Your task to perform on an android device: Open Maps and search for coffee Image 0: 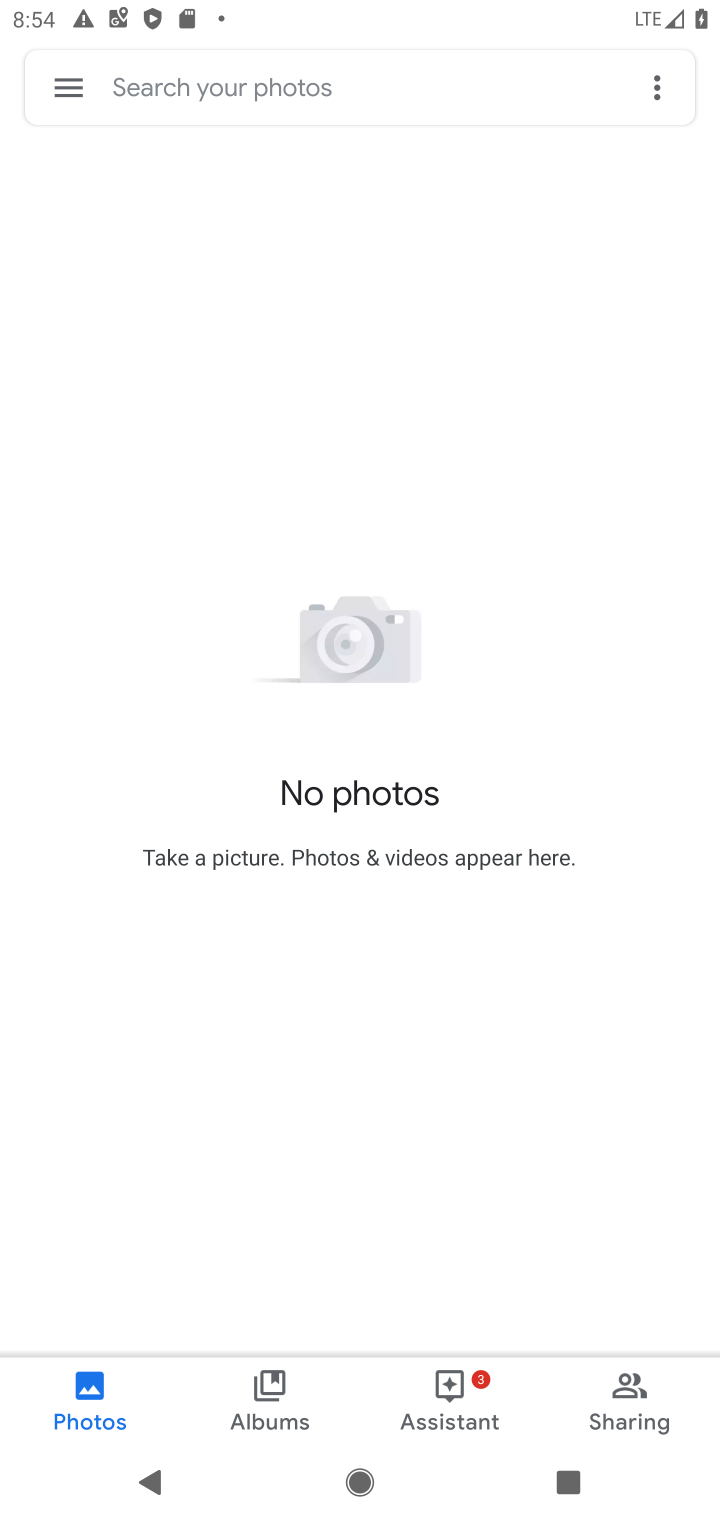
Step 0: press home button
Your task to perform on an android device: Open Maps and search for coffee Image 1: 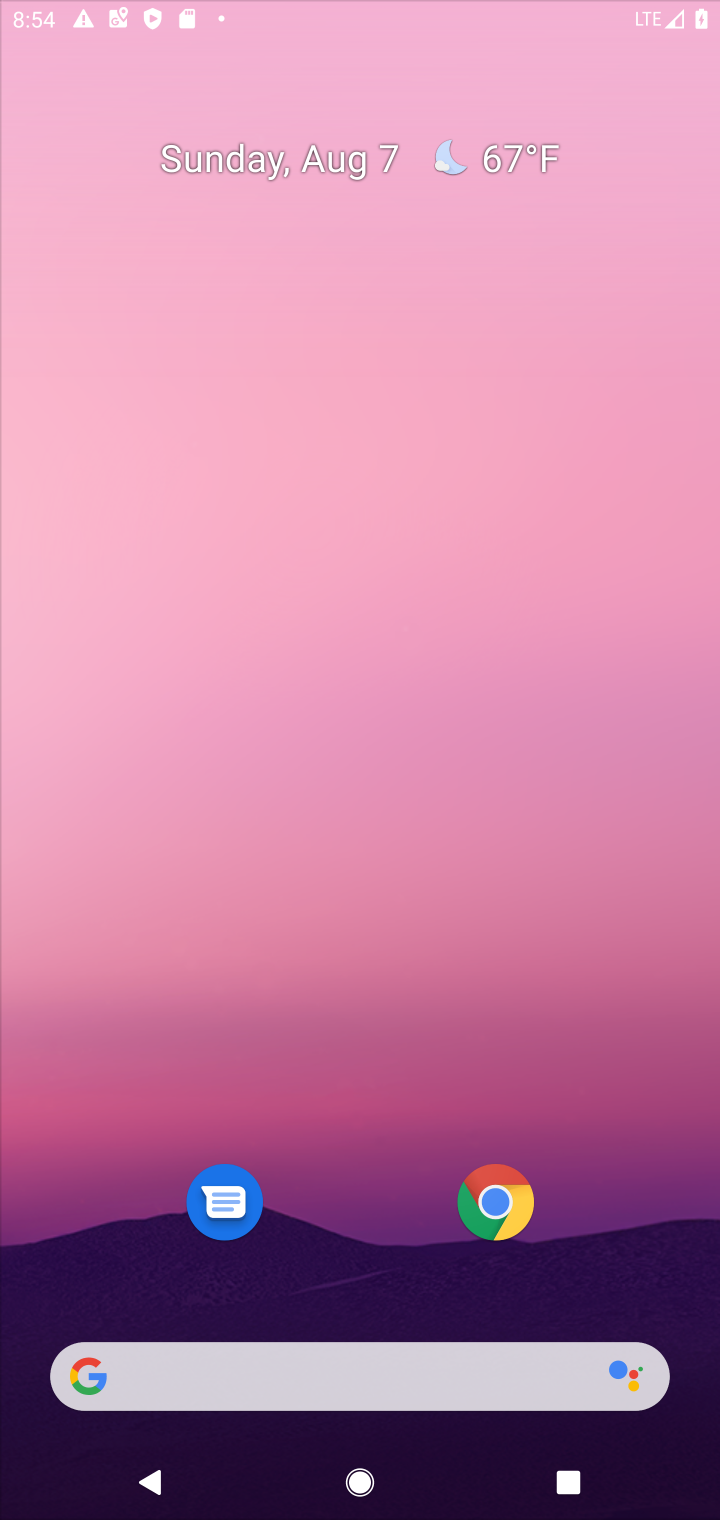
Step 1: press home button
Your task to perform on an android device: Open Maps and search for coffee Image 2: 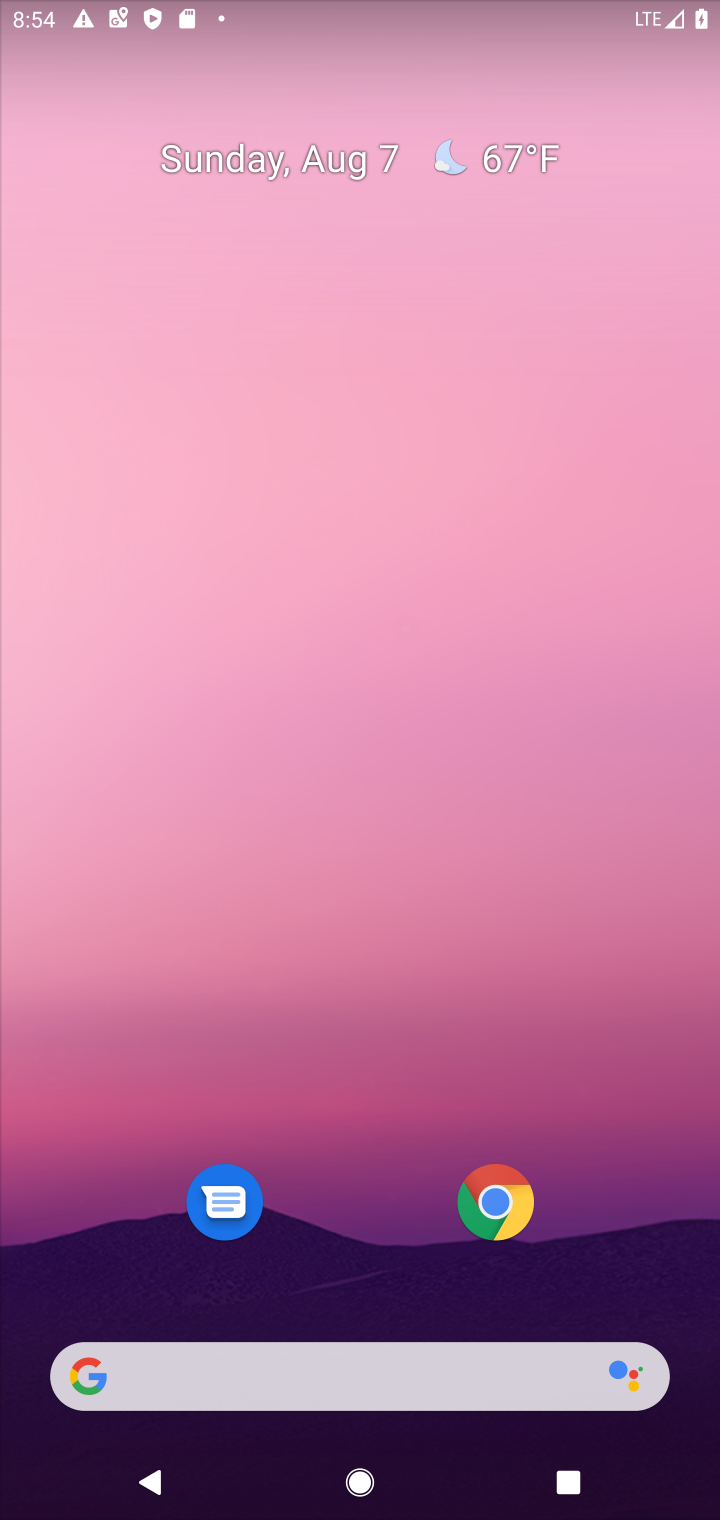
Step 2: drag from (333, 1293) to (324, 458)
Your task to perform on an android device: Open Maps and search for coffee Image 3: 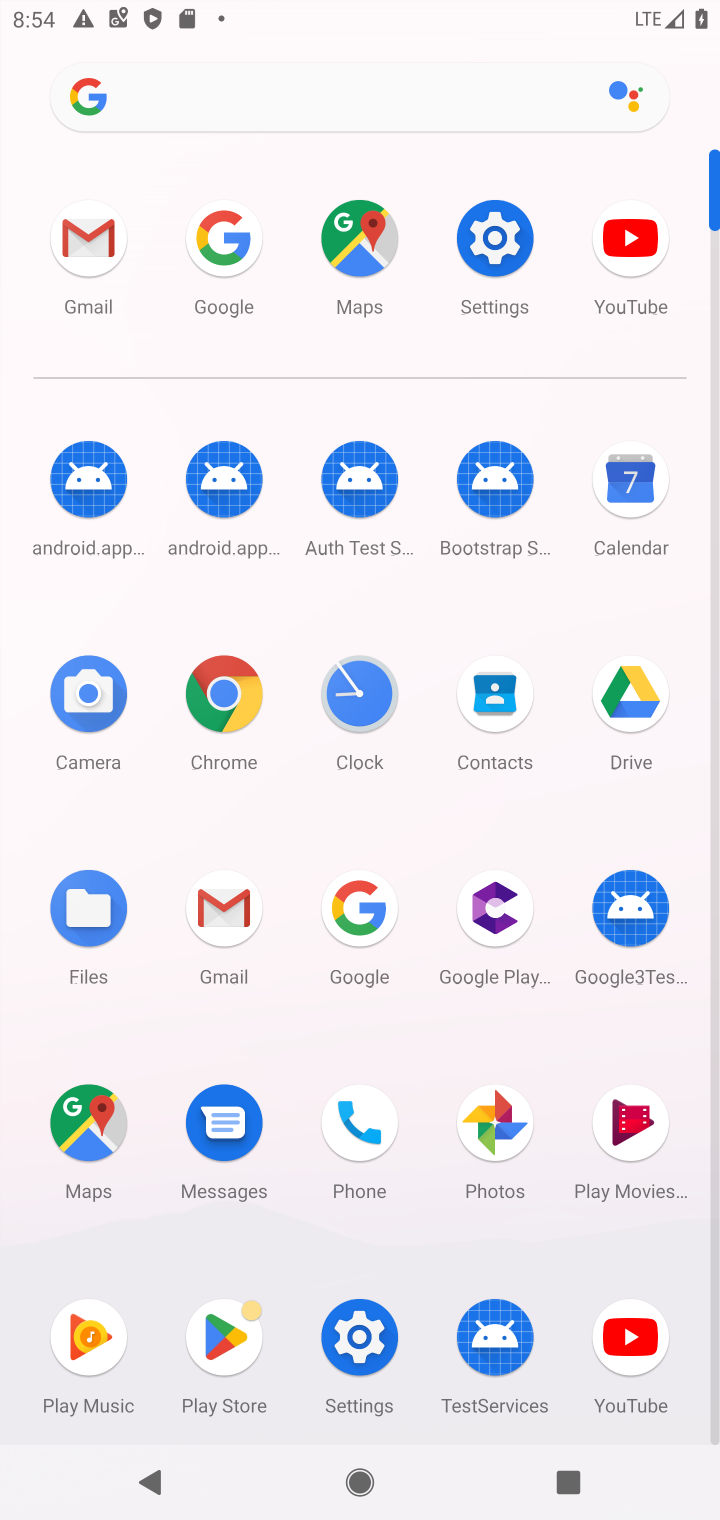
Step 3: click (348, 242)
Your task to perform on an android device: Open Maps and search for coffee Image 4: 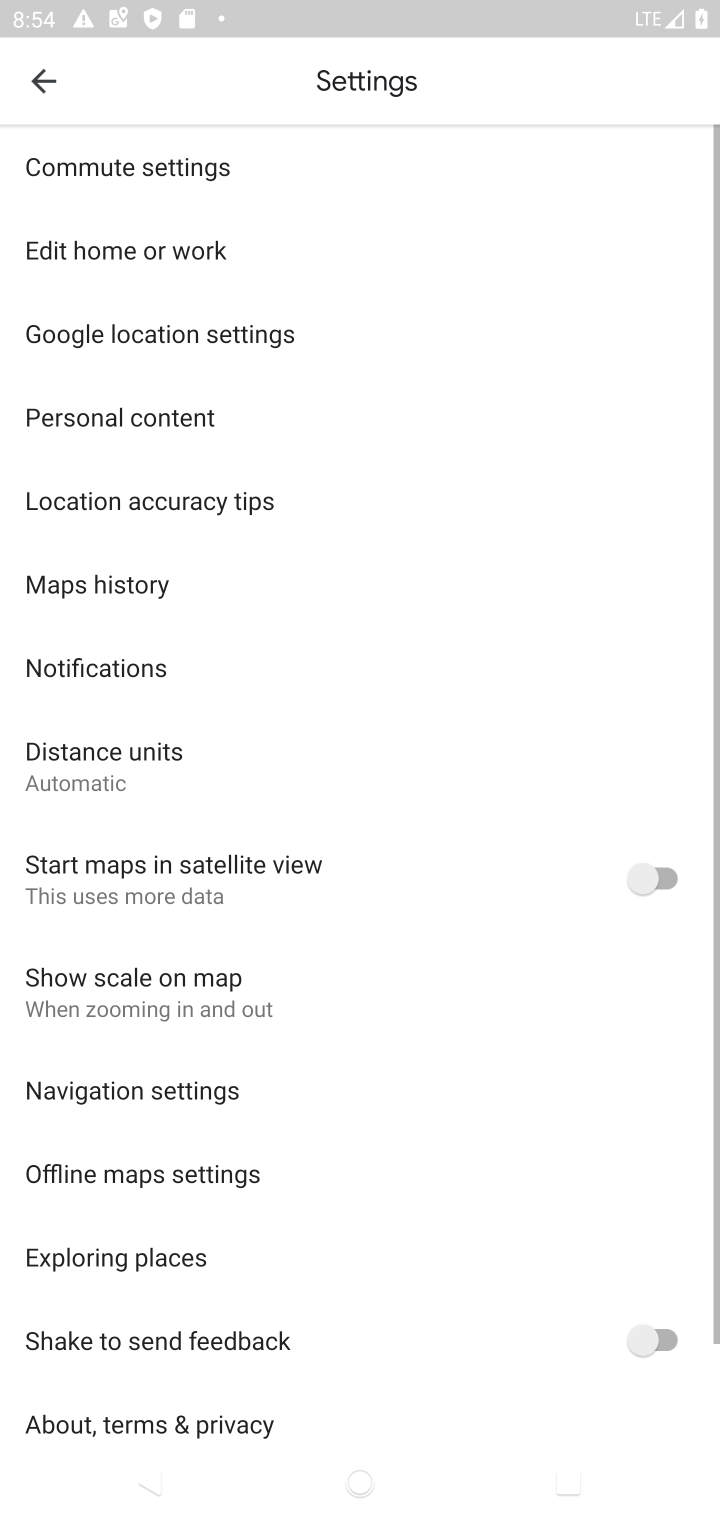
Step 4: click (47, 95)
Your task to perform on an android device: Open Maps and search for coffee Image 5: 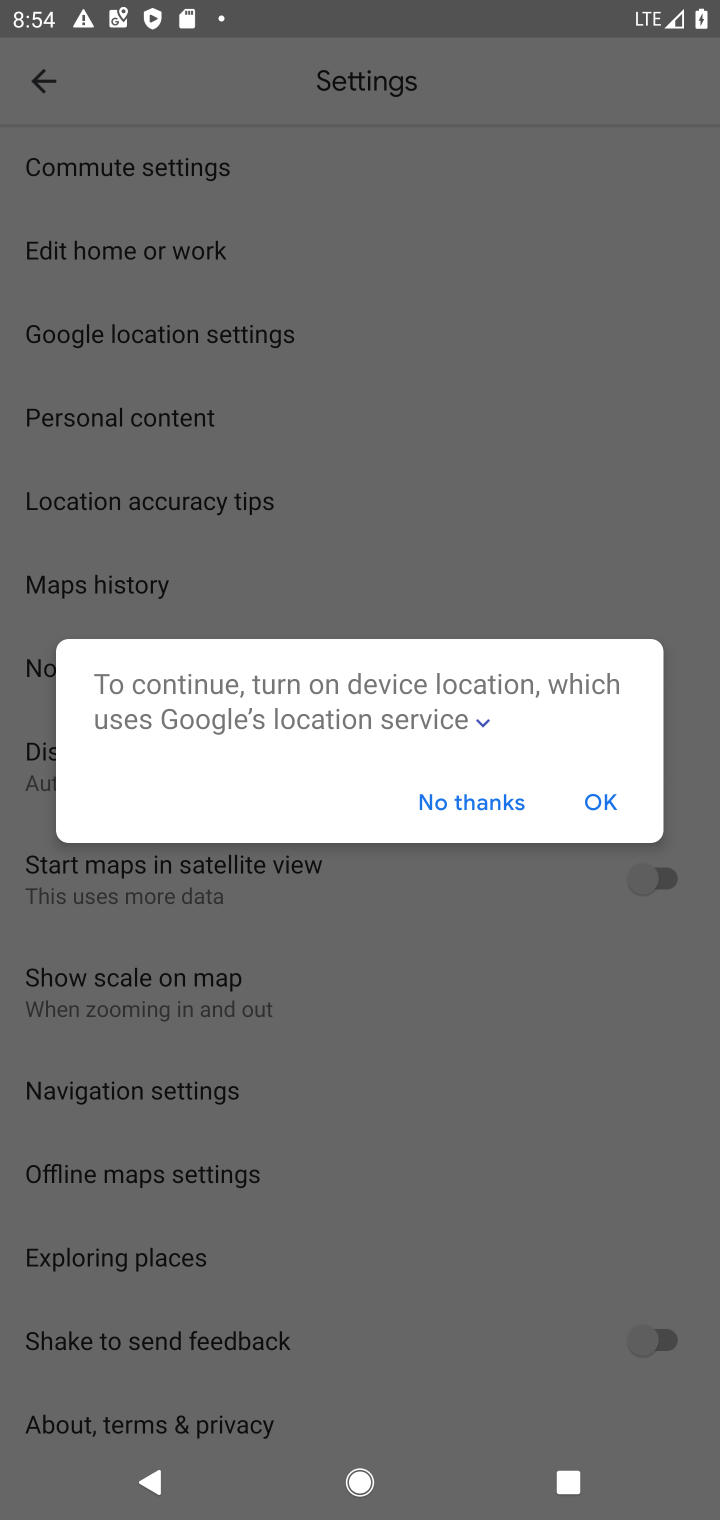
Step 5: click (585, 801)
Your task to perform on an android device: Open Maps and search for coffee Image 6: 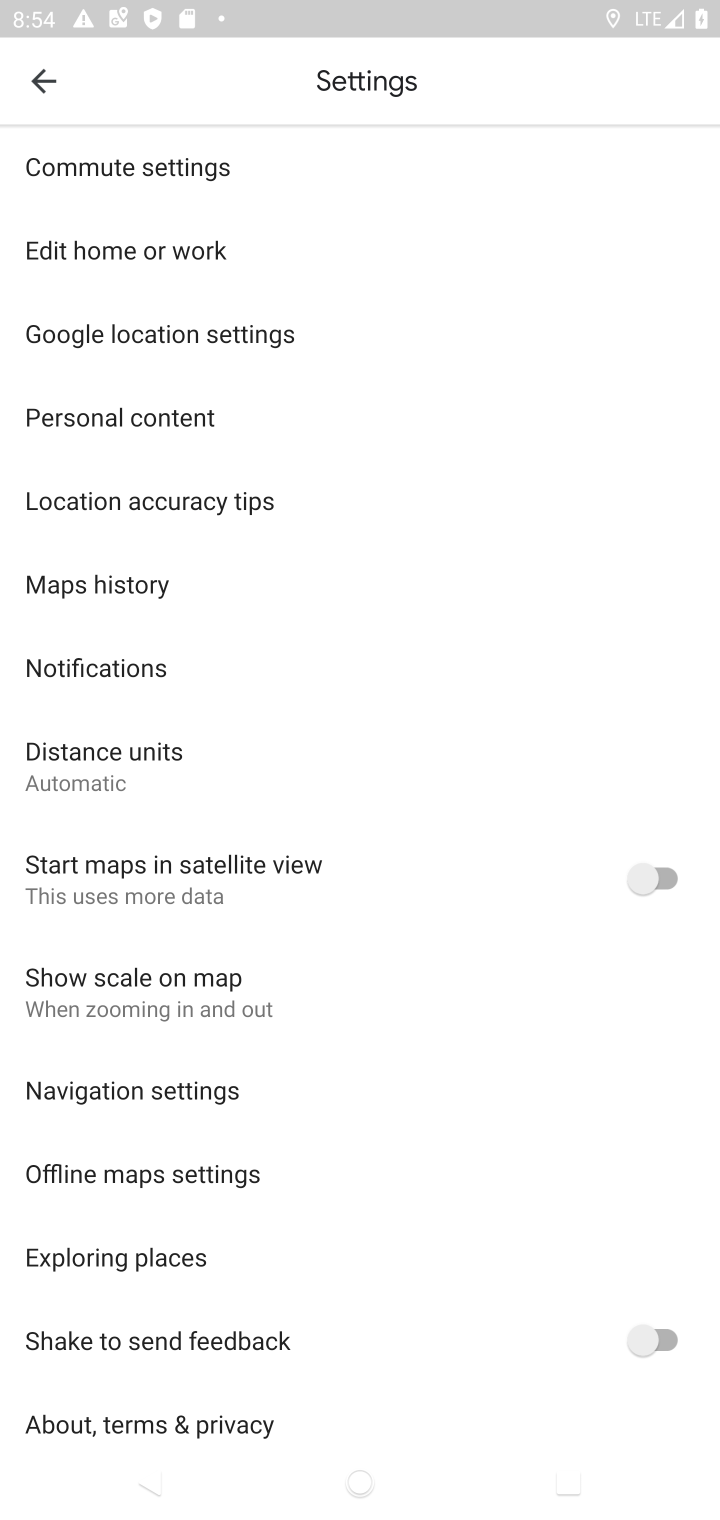
Step 6: click (37, 88)
Your task to perform on an android device: Open Maps and search for coffee Image 7: 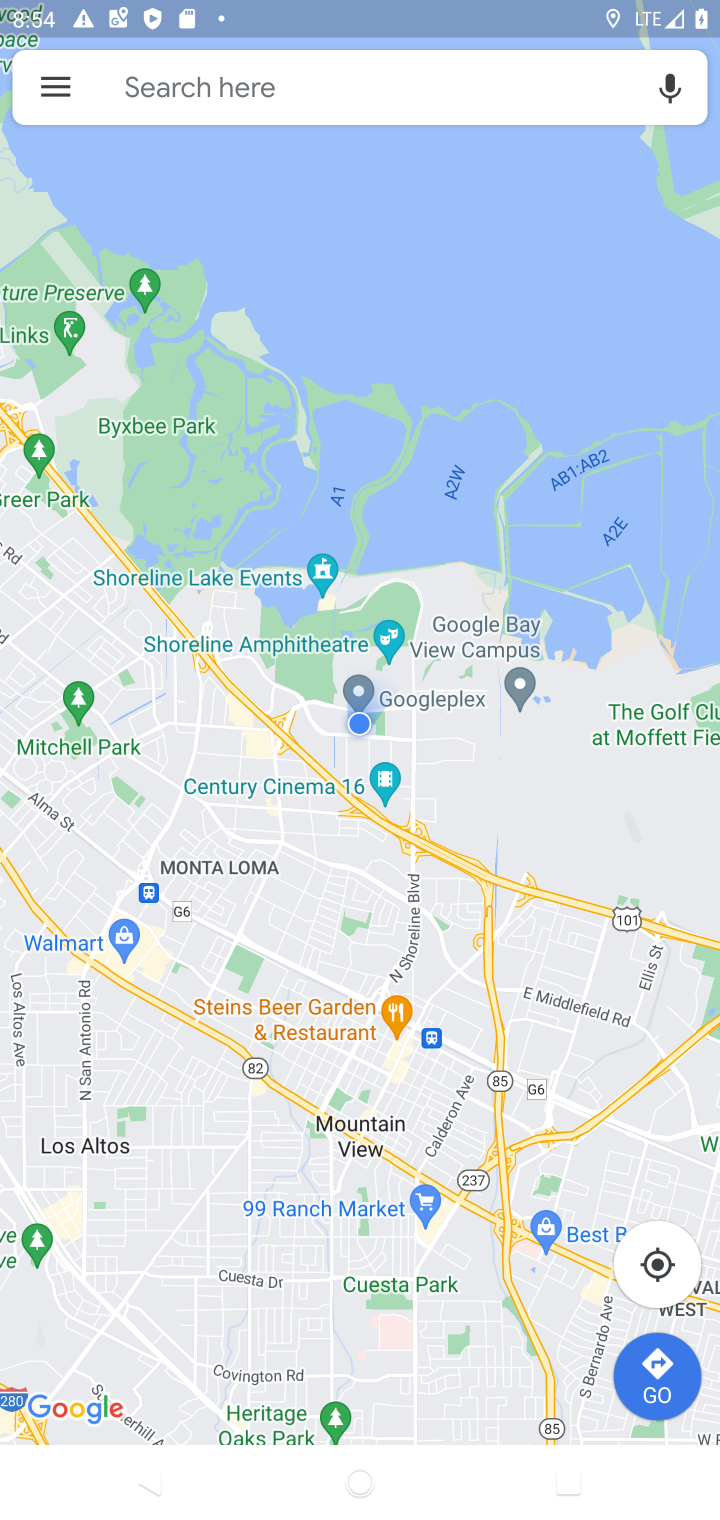
Step 7: click (294, 91)
Your task to perform on an android device: Open Maps and search for coffee Image 8: 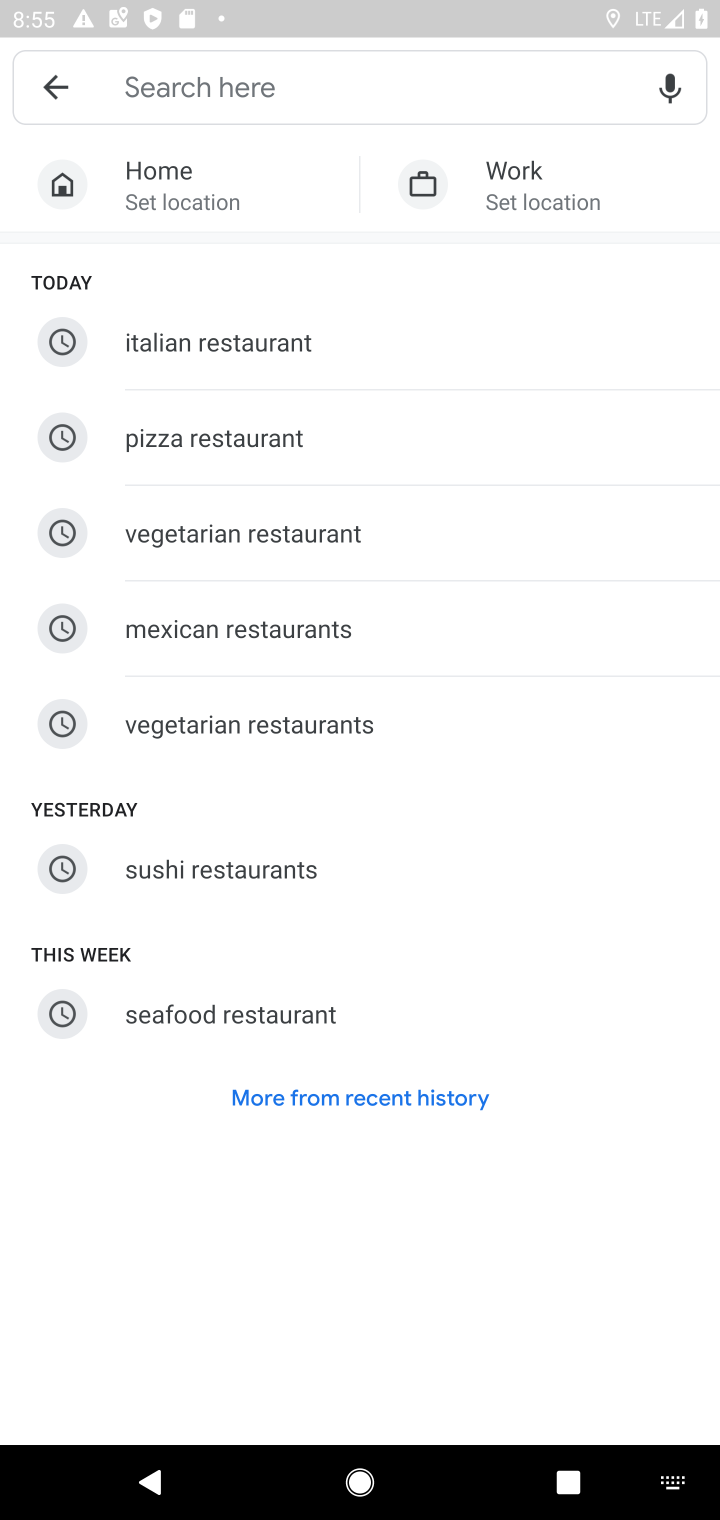
Step 8: type "coffee"
Your task to perform on an android device: Open Maps and search for coffee Image 9: 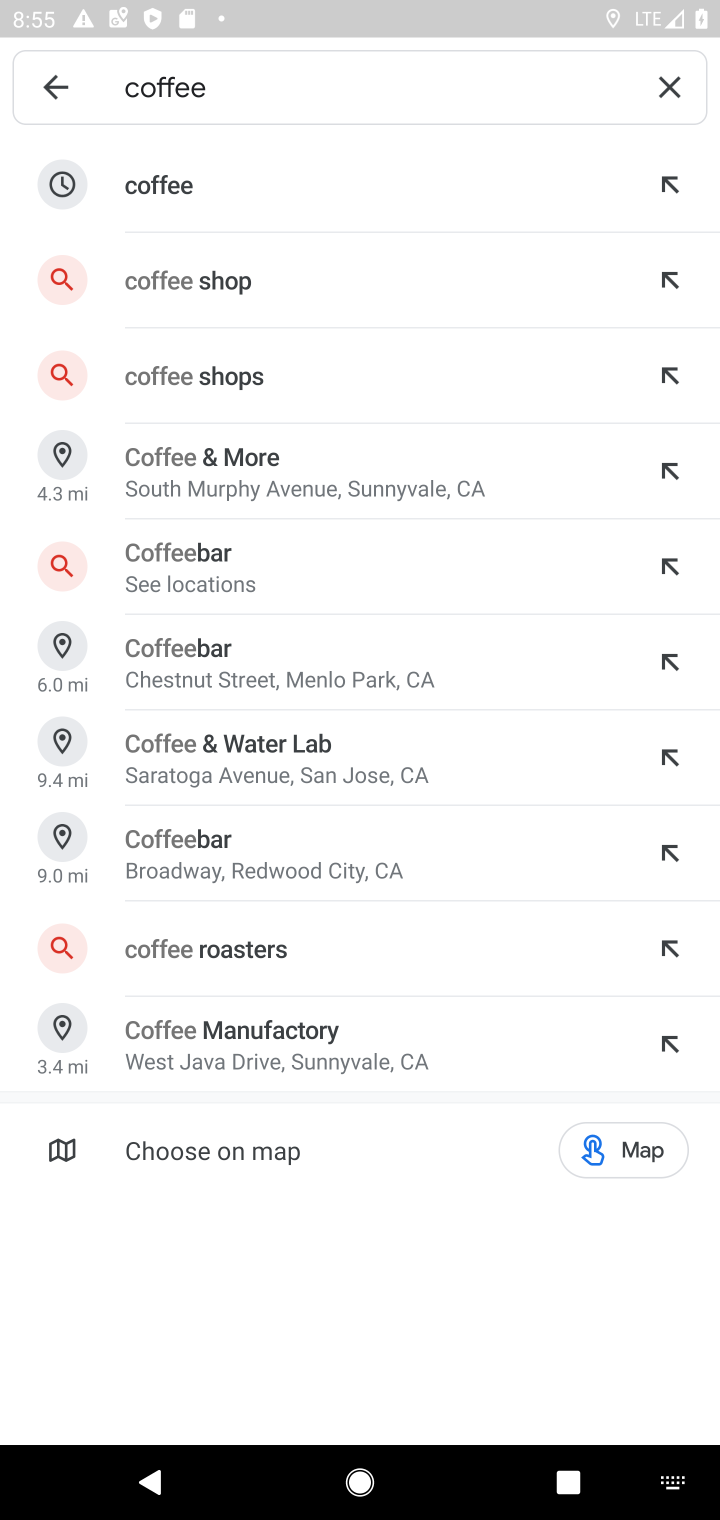
Step 9: click (383, 177)
Your task to perform on an android device: Open Maps and search for coffee Image 10: 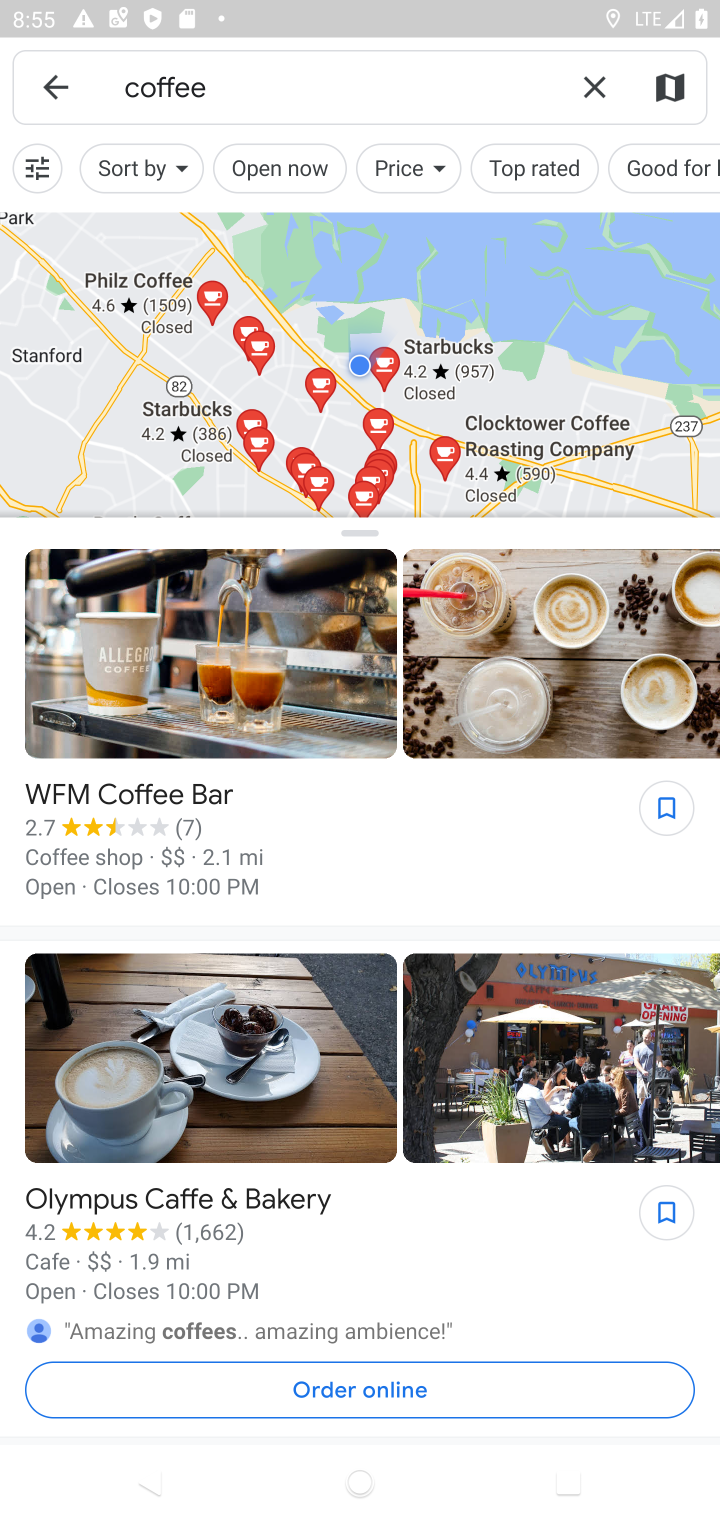
Step 10: task complete